Your task to perform on an android device: Show me popular games on the Play Store Image 0: 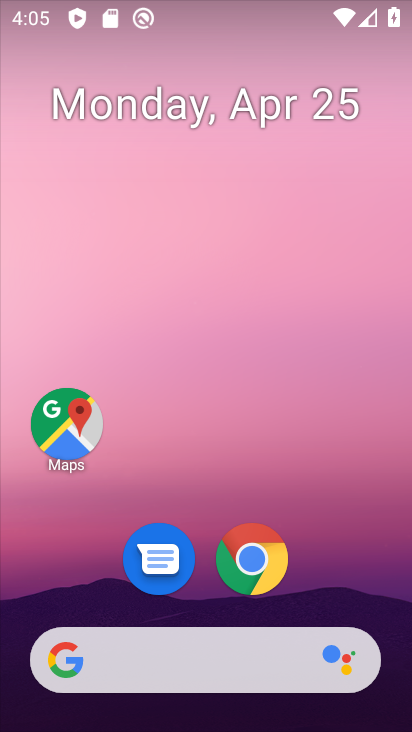
Step 0: drag from (204, 474) to (202, 25)
Your task to perform on an android device: Show me popular games on the Play Store Image 1: 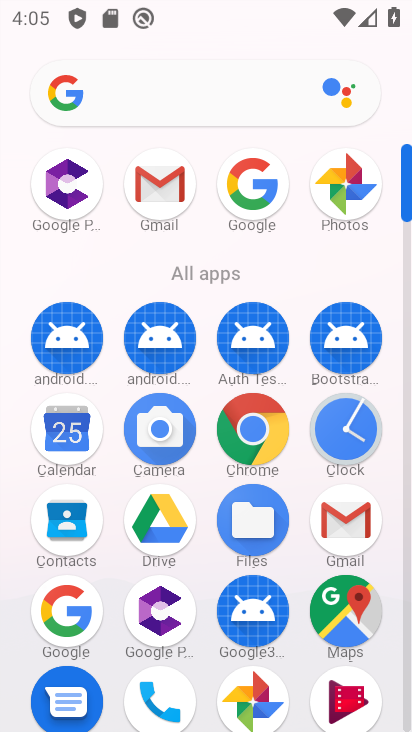
Step 1: drag from (110, 286) to (134, 117)
Your task to perform on an android device: Show me popular games on the Play Store Image 2: 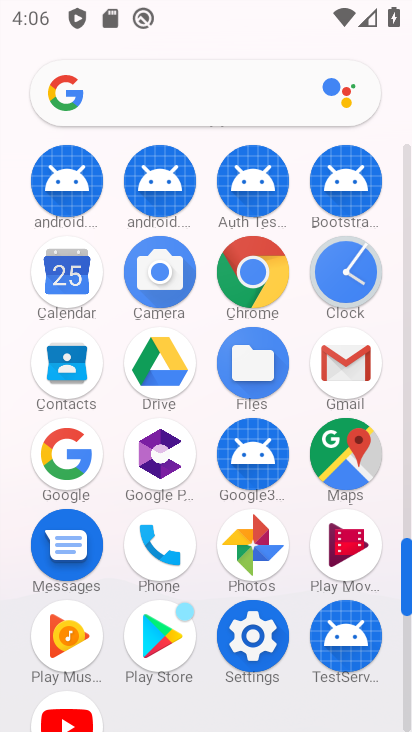
Step 2: click (160, 635)
Your task to perform on an android device: Show me popular games on the Play Store Image 3: 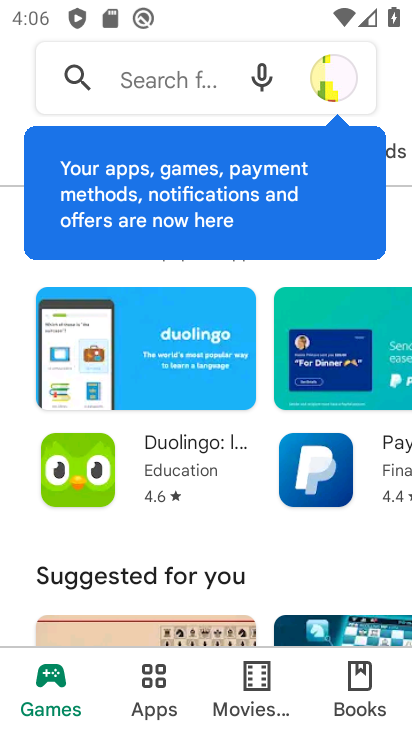
Step 3: click (193, 78)
Your task to perform on an android device: Show me popular games on the Play Store Image 4: 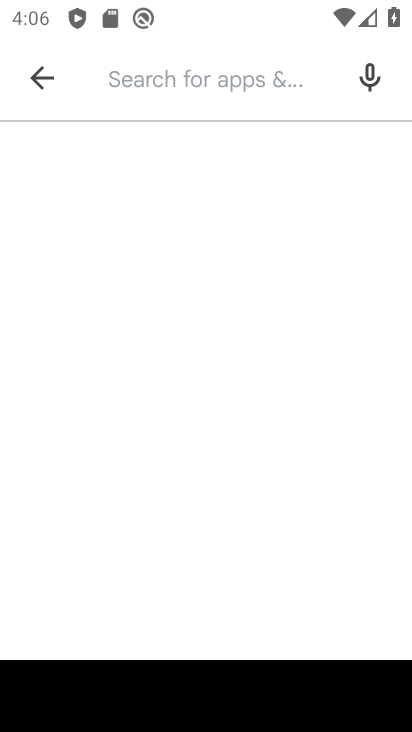
Step 4: type "popular games"
Your task to perform on an android device: Show me popular games on the Play Store Image 5: 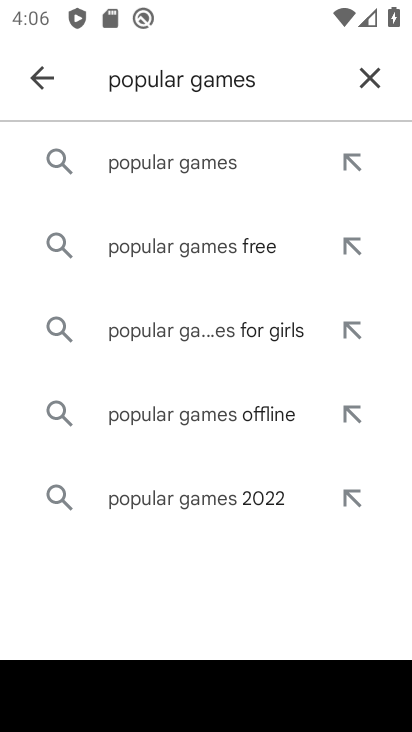
Step 5: click (156, 165)
Your task to perform on an android device: Show me popular games on the Play Store Image 6: 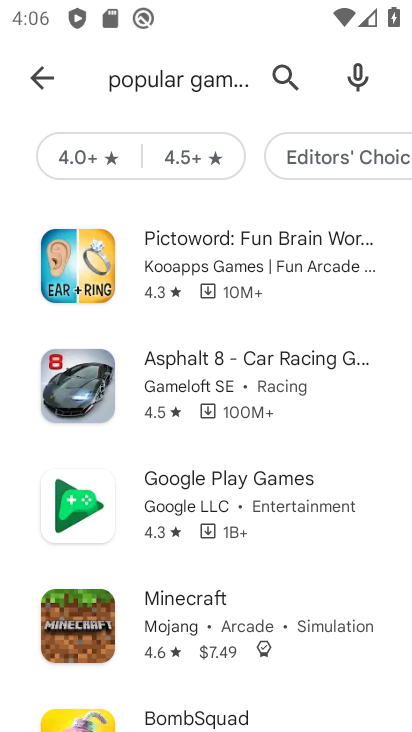
Step 6: task complete